Your task to perform on an android device: open a bookmark in the chrome app Image 0: 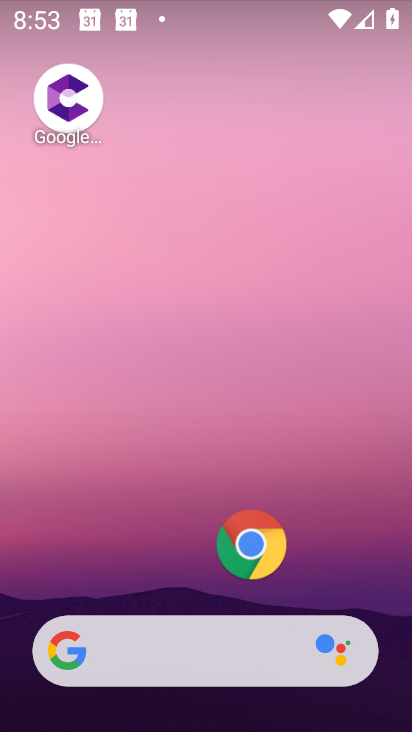
Step 0: click (259, 545)
Your task to perform on an android device: open a bookmark in the chrome app Image 1: 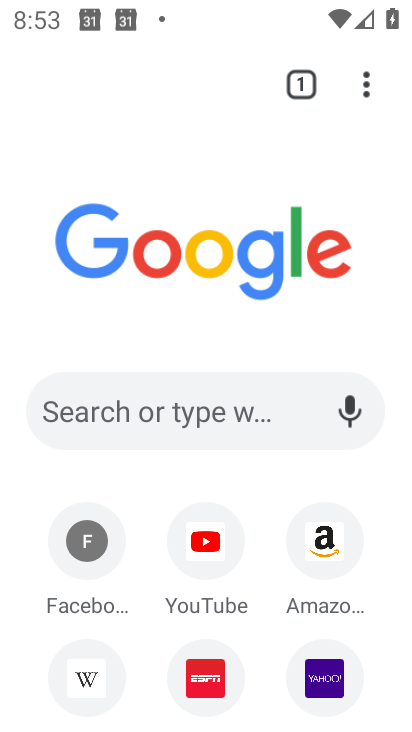
Step 1: click (364, 89)
Your task to perform on an android device: open a bookmark in the chrome app Image 2: 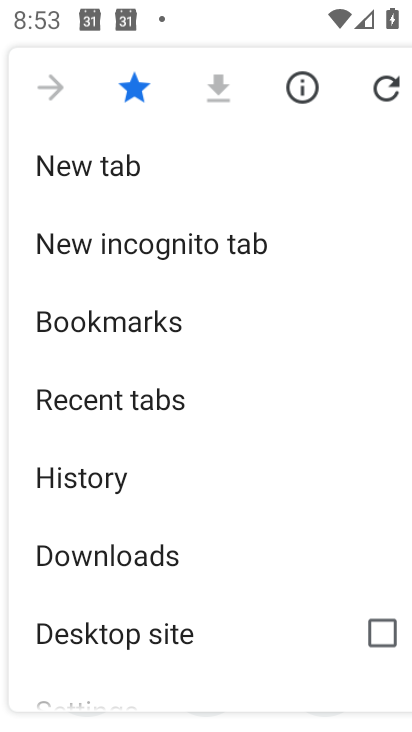
Step 2: click (101, 319)
Your task to perform on an android device: open a bookmark in the chrome app Image 3: 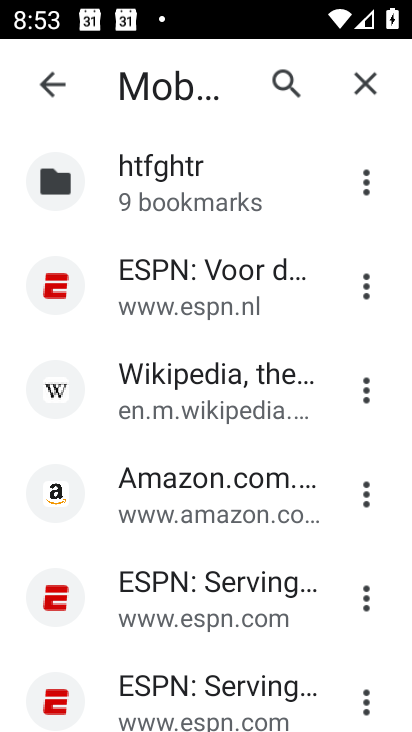
Step 3: task complete